Your task to perform on an android device: toggle sleep mode Image 0: 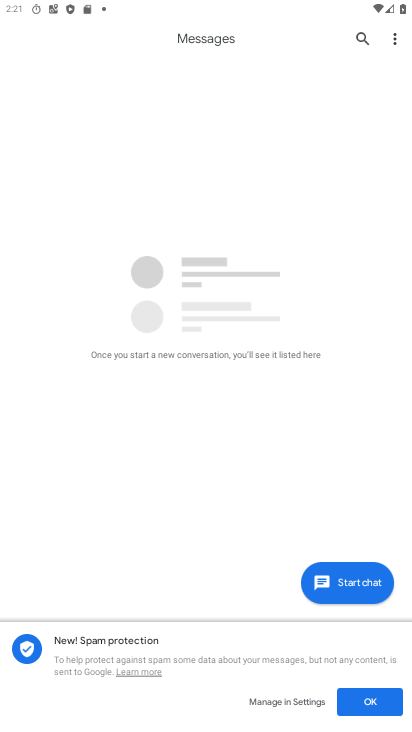
Step 0: press home button
Your task to perform on an android device: toggle sleep mode Image 1: 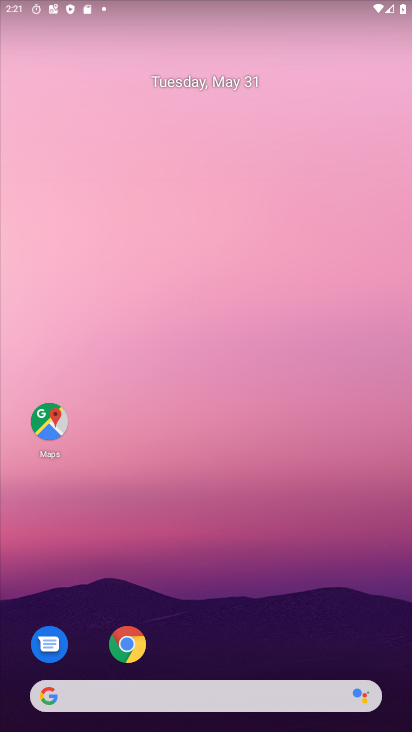
Step 1: drag from (394, 667) to (349, 106)
Your task to perform on an android device: toggle sleep mode Image 2: 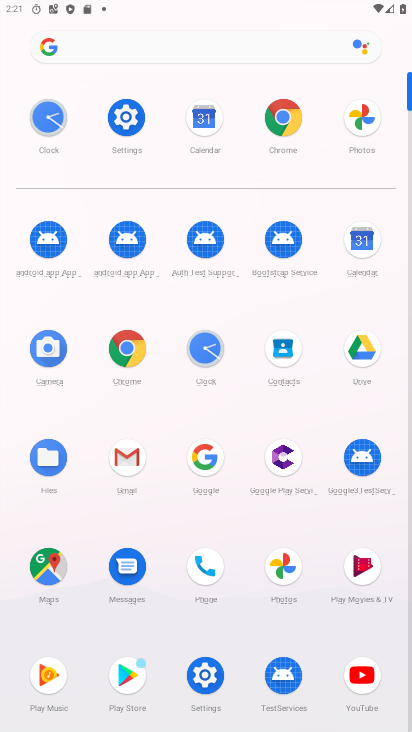
Step 2: click (134, 116)
Your task to perform on an android device: toggle sleep mode Image 3: 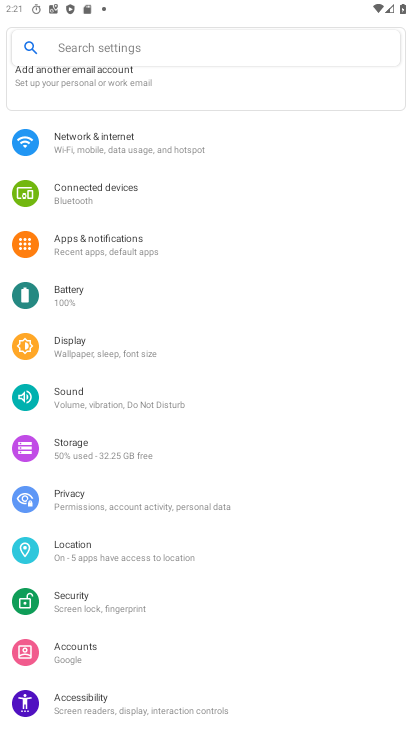
Step 3: click (73, 353)
Your task to perform on an android device: toggle sleep mode Image 4: 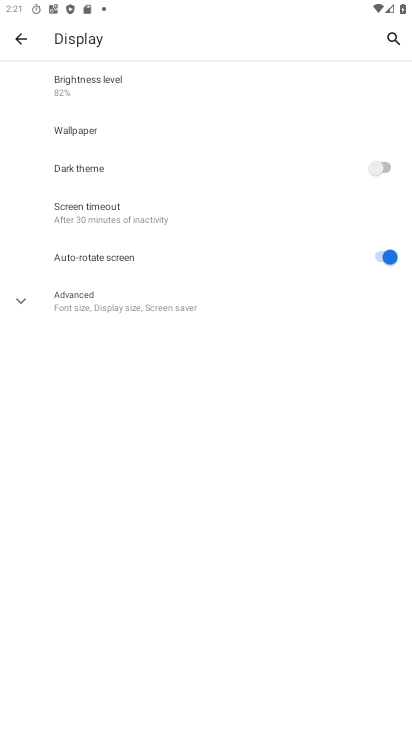
Step 4: click (87, 201)
Your task to perform on an android device: toggle sleep mode Image 5: 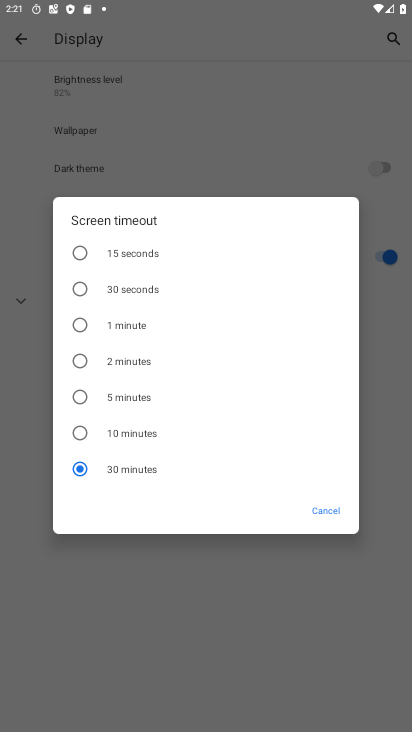
Step 5: click (81, 432)
Your task to perform on an android device: toggle sleep mode Image 6: 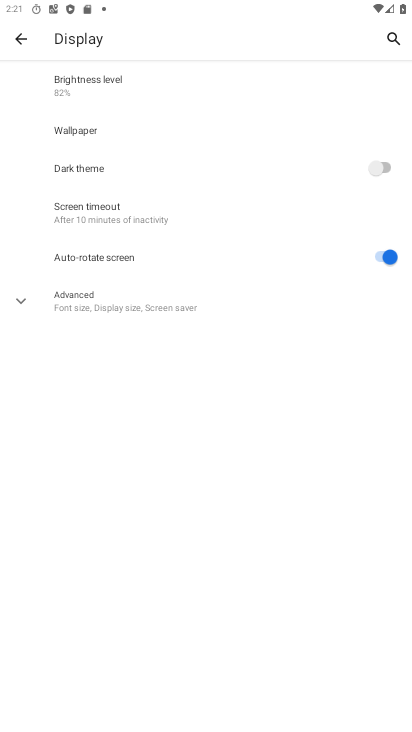
Step 6: task complete